Your task to perform on an android device: Open calendar and show me the fourth week of next month Image 0: 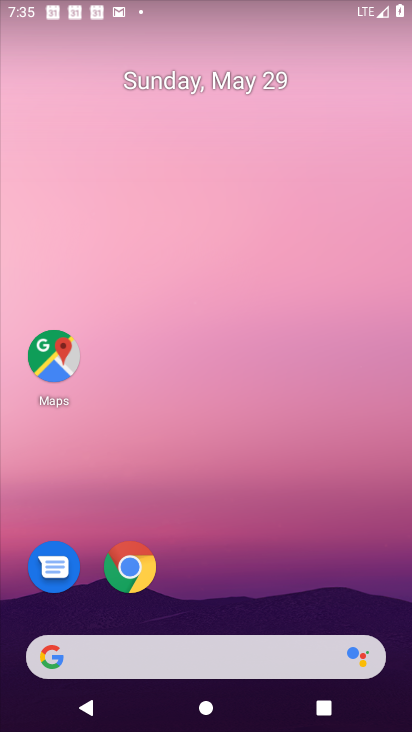
Step 0: drag from (266, 588) to (305, 267)
Your task to perform on an android device: Open calendar and show me the fourth week of next month Image 1: 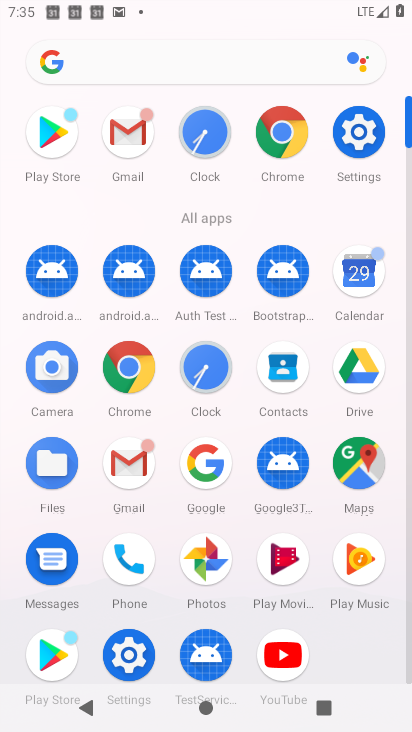
Step 1: click (355, 263)
Your task to perform on an android device: Open calendar and show me the fourth week of next month Image 2: 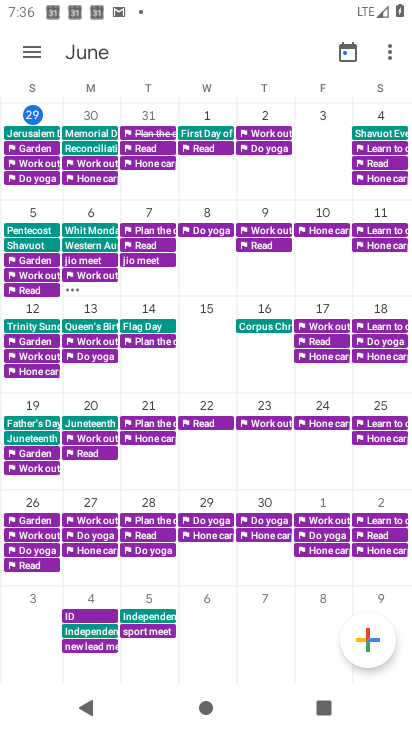
Step 2: task complete